Your task to perform on an android device: Go to Reddit.com Image 0: 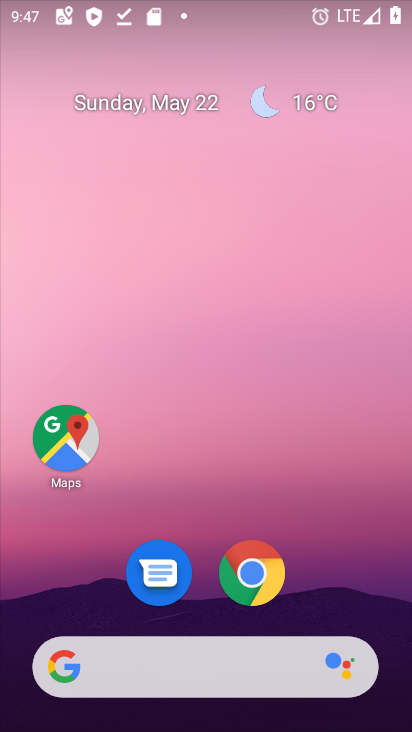
Step 0: drag from (253, 675) to (162, 26)
Your task to perform on an android device: Go to Reddit.com Image 1: 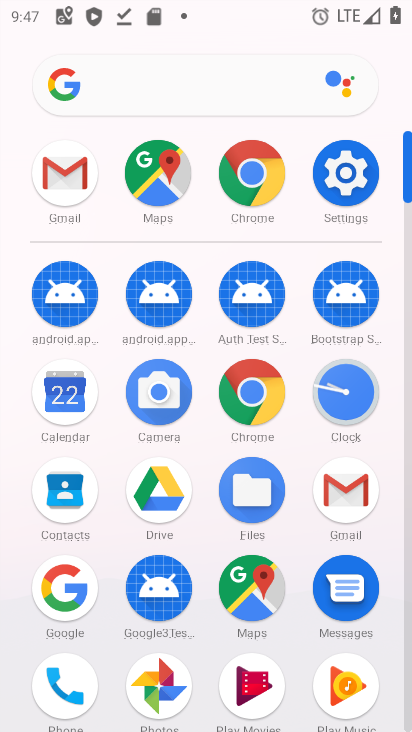
Step 1: click (265, 369)
Your task to perform on an android device: Go to Reddit.com Image 2: 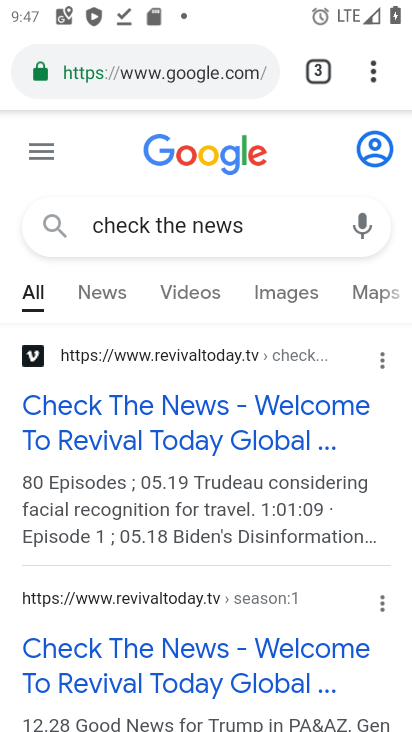
Step 2: click (234, 76)
Your task to perform on an android device: Go to Reddit.com Image 3: 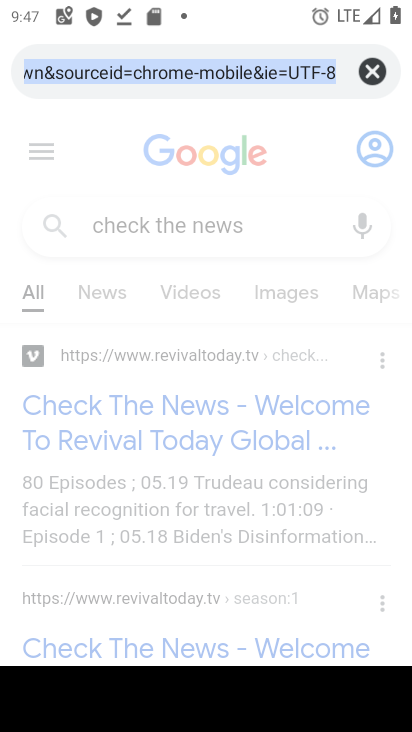
Step 3: click (376, 74)
Your task to perform on an android device: Go to Reddit.com Image 4: 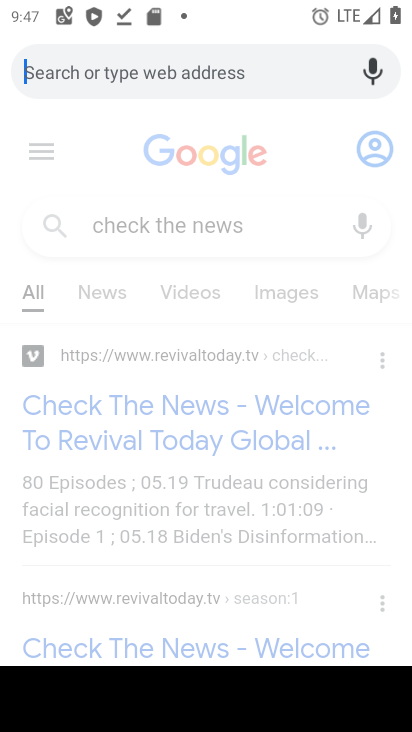
Step 4: type "reddit.com"
Your task to perform on an android device: Go to Reddit.com Image 5: 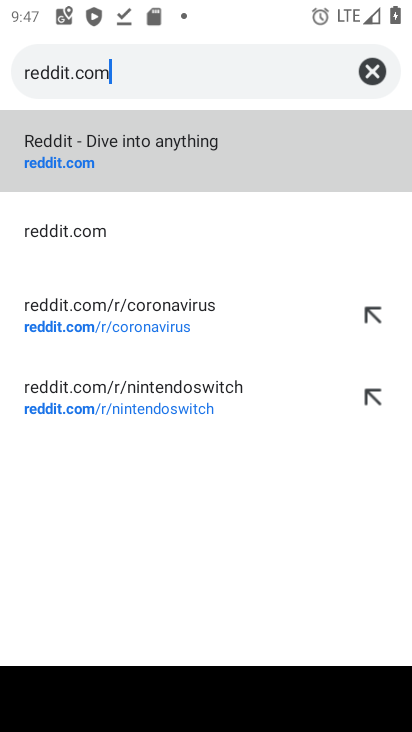
Step 5: click (140, 148)
Your task to perform on an android device: Go to Reddit.com Image 6: 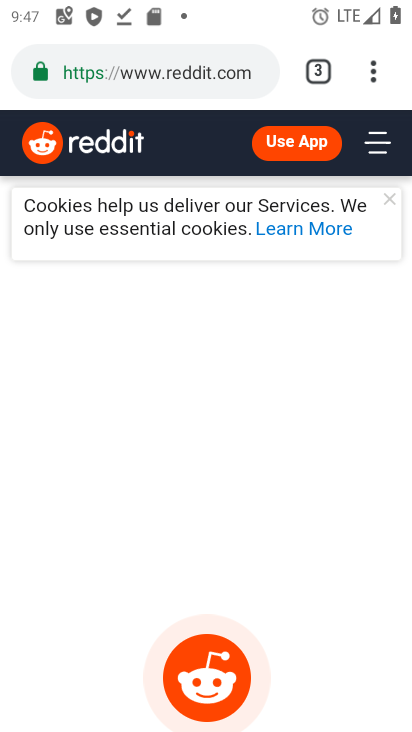
Step 6: task complete